Your task to perform on an android device: Go to Reddit.com Image 0: 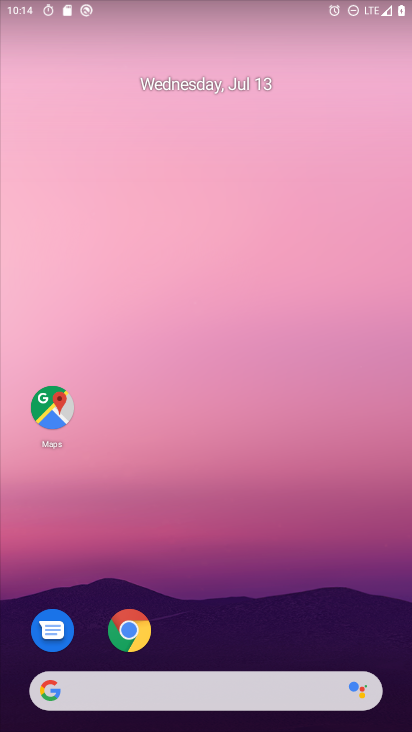
Step 0: drag from (375, 672) to (242, 76)
Your task to perform on an android device: Go to Reddit.com Image 1: 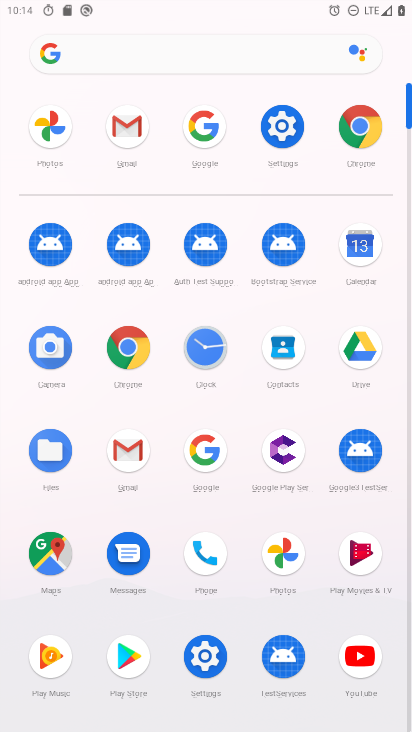
Step 1: click (200, 470)
Your task to perform on an android device: Go to Reddit.com Image 2: 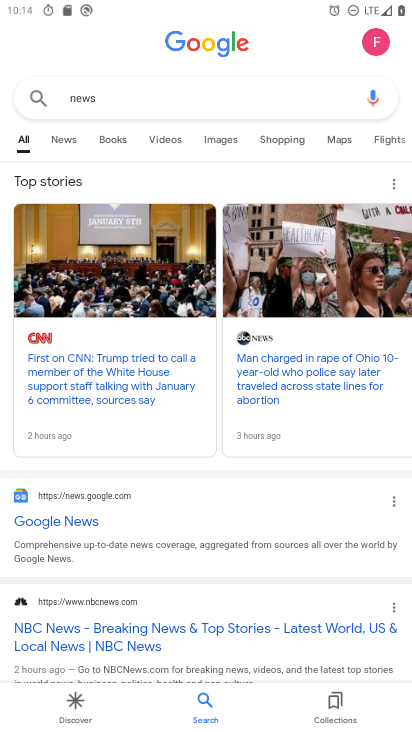
Step 2: press back button
Your task to perform on an android device: Go to Reddit.com Image 3: 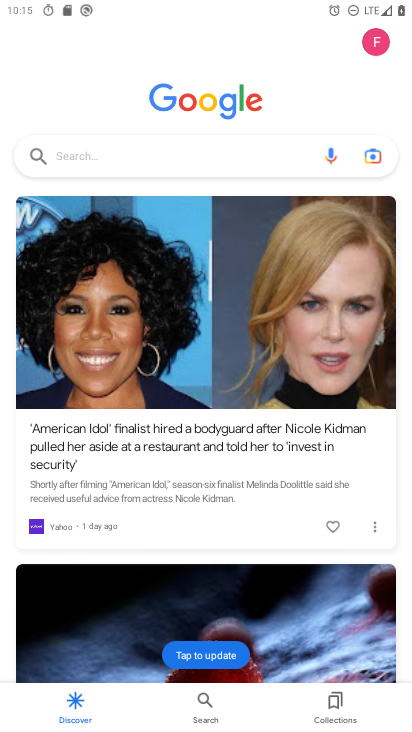
Step 3: click (89, 155)
Your task to perform on an android device: Go to Reddit.com Image 4: 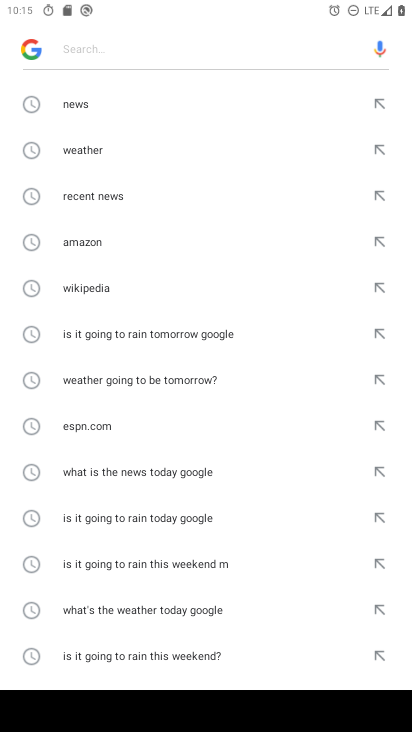
Step 4: type "Reddit.com"
Your task to perform on an android device: Go to Reddit.com Image 5: 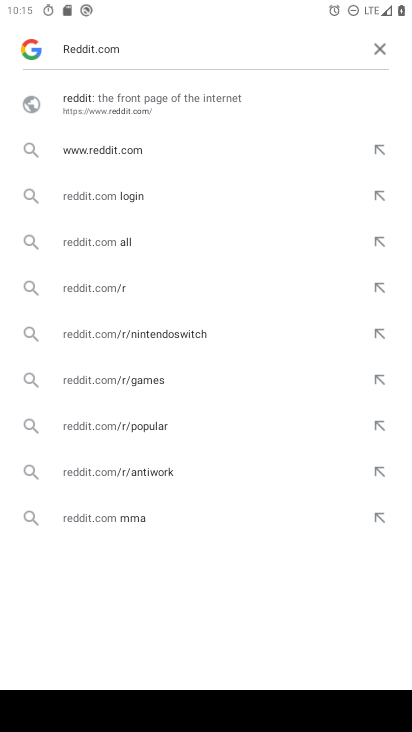
Step 5: click (128, 87)
Your task to perform on an android device: Go to Reddit.com Image 6: 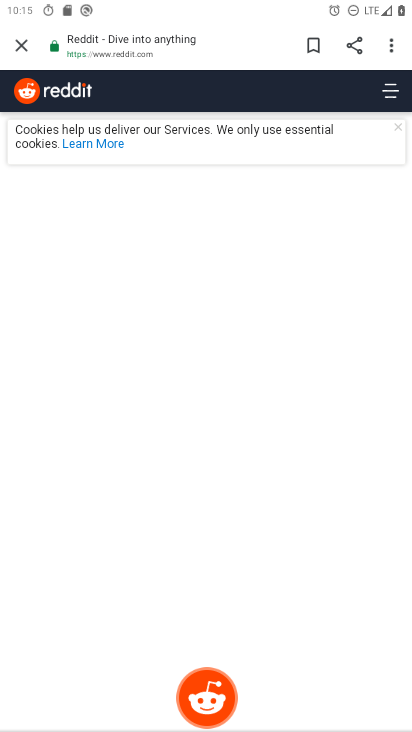
Step 6: task complete